Your task to perform on an android device: Search for vegetarian restaurants on Maps Image 0: 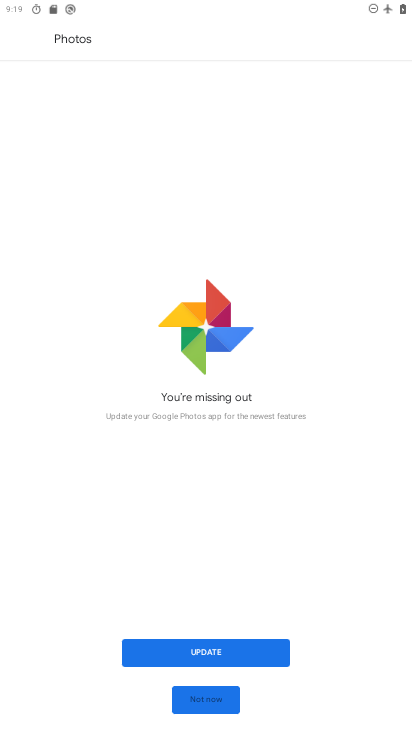
Step 0: press home button
Your task to perform on an android device: Search for vegetarian restaurants on Maps Image 1: 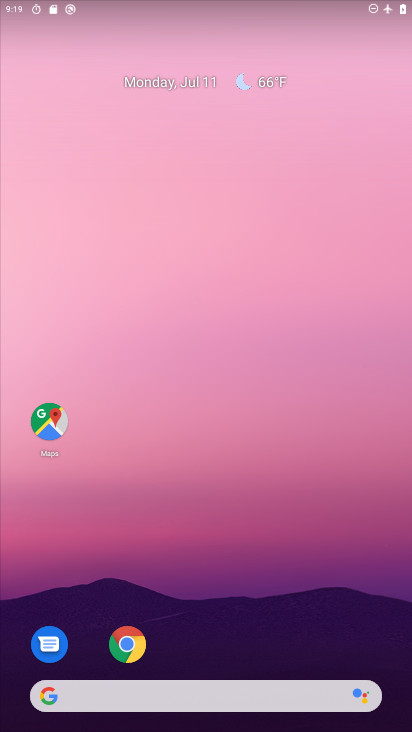
Step 1: click (53, 414)
Your task to perform on an android device: Search for vegetarian restaurants on Maps Image 2: 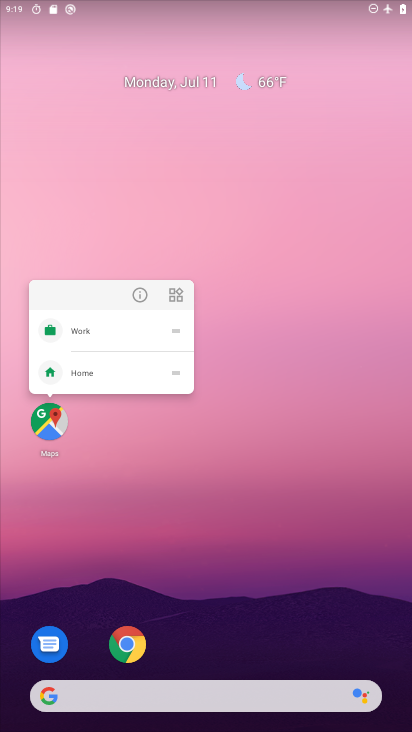
Step 2: click (50, 414)
Your task to perform on an android device: Search for vegetarian restaurants on Maps Image 3: 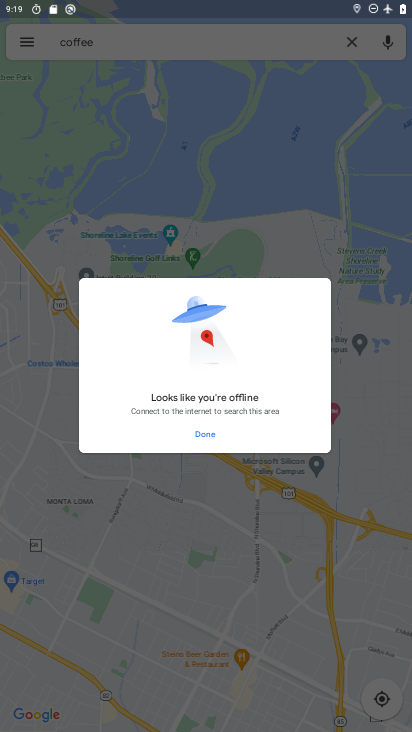
Step 3: task complete